Your task to perform on an android device: Go to network settings Image 0: 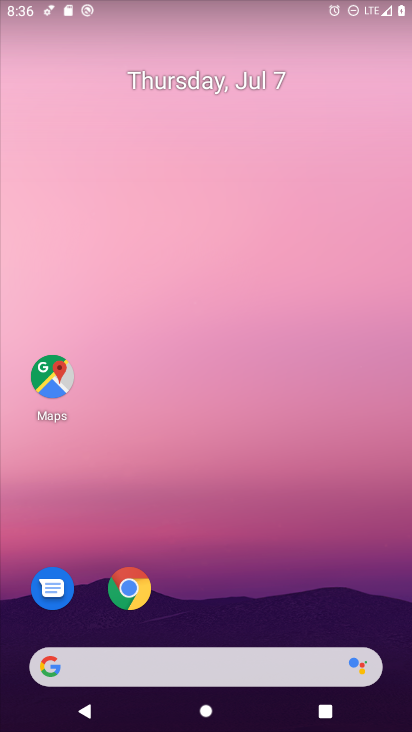
Step 0: drag from (245, 631) to (241, 122)
Your task to perform on an android device: Go to network settings Image 1: 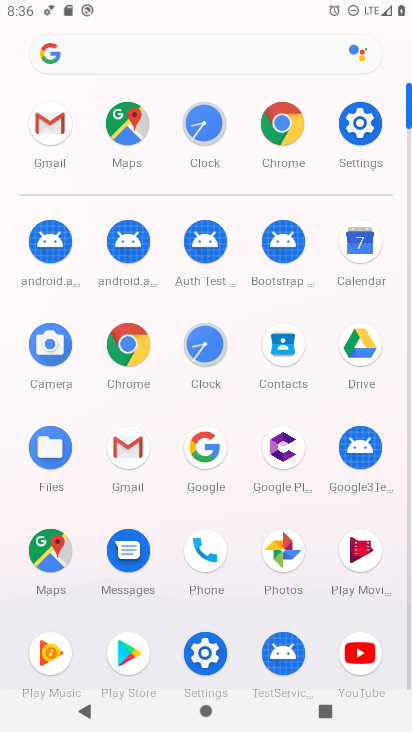
Step 1: click (359, 116)
Your task to perform on an android device: Go to network settings Image 2: 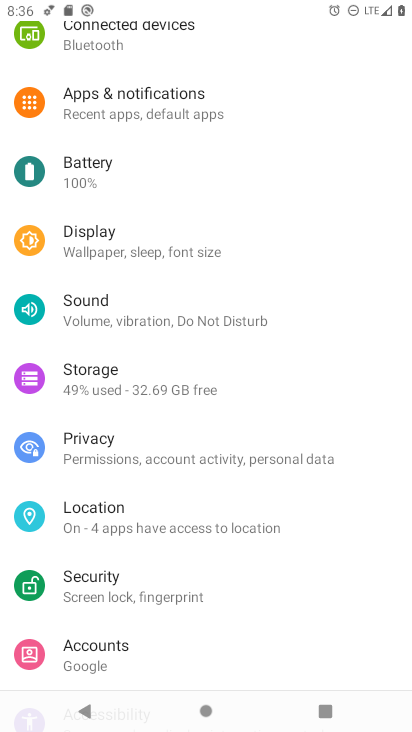
Step 2: drag from (97, 106) to (167, 612)
Your task to perform on an android device: Go to network settings Image 3: 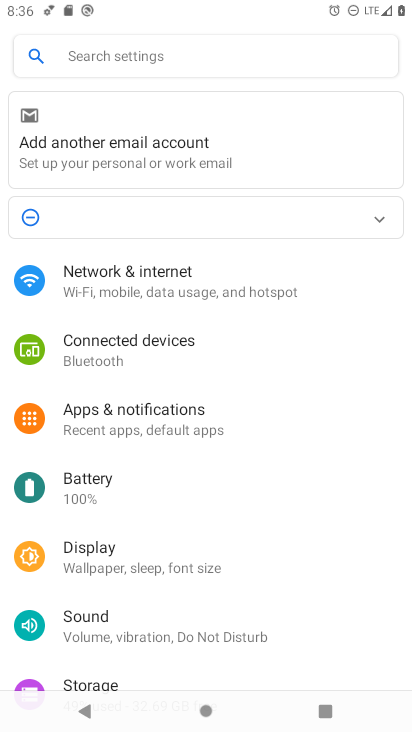
Step 3: click (194, 273)
Your task to perform on an android device: Go to network settings Image 4: 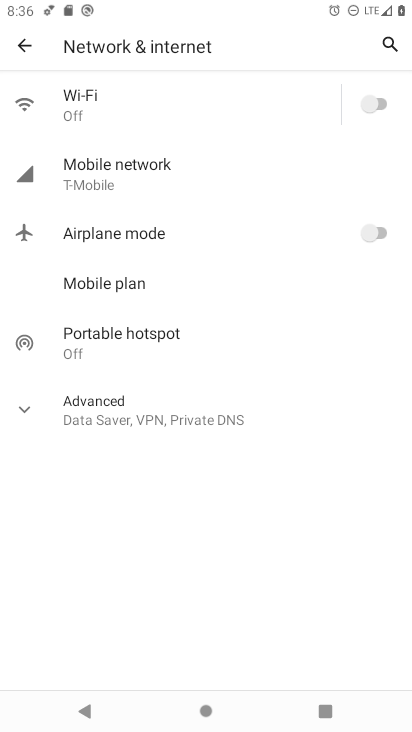
Step 4: task complete